Your task to perform on an android device: Open the camera Image 0: 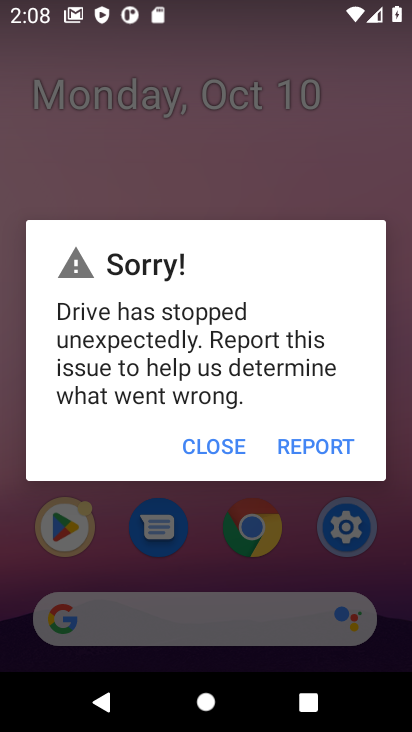
Step 0: press home button
Your task to perform on an android device: Open the camera Image 1: 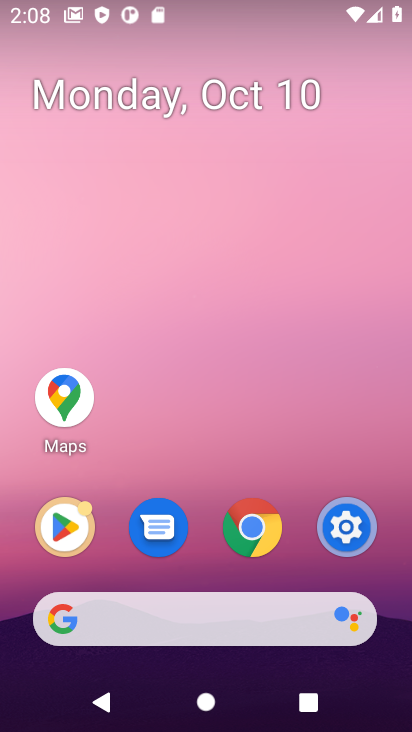
Step 1: task complete